Your task to perform on an android device: turn on airplane mode Image 0: 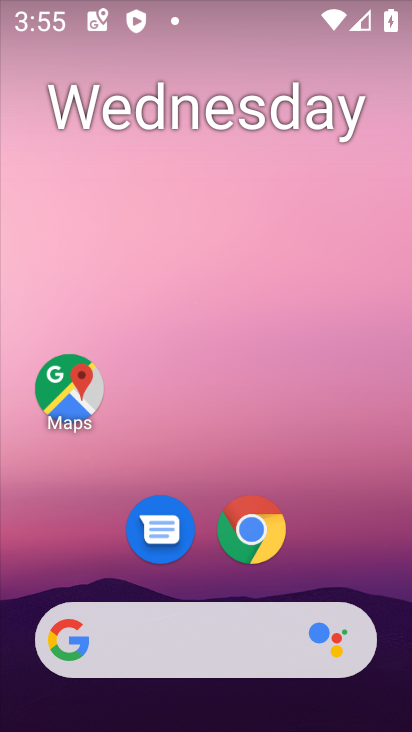
Step 0: drag from (336, 540) to (364, 98)
Your task to perform on an android device: turn on airplane mode Image 1: 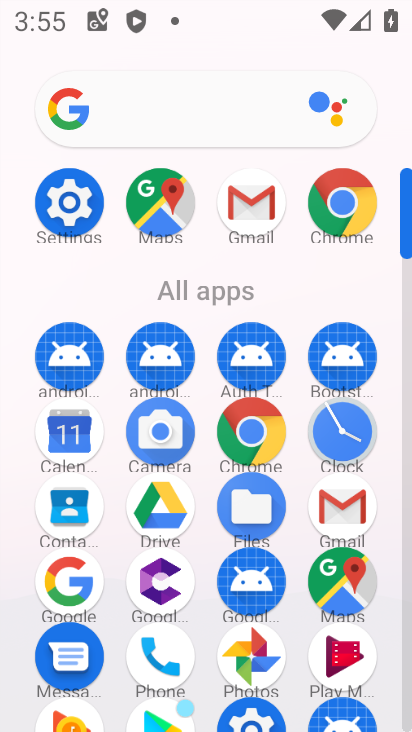
Step 1: click (88, 197)
Your task to perform on an android device: turn on airplane mode Image 2: 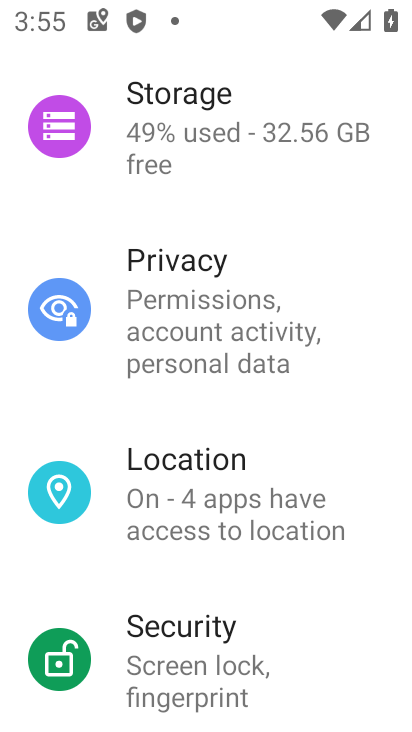
Step 2: drag from (286, 200) to (295, 608)
Your task to perform on an android device: turn on airplane mode Image 3: 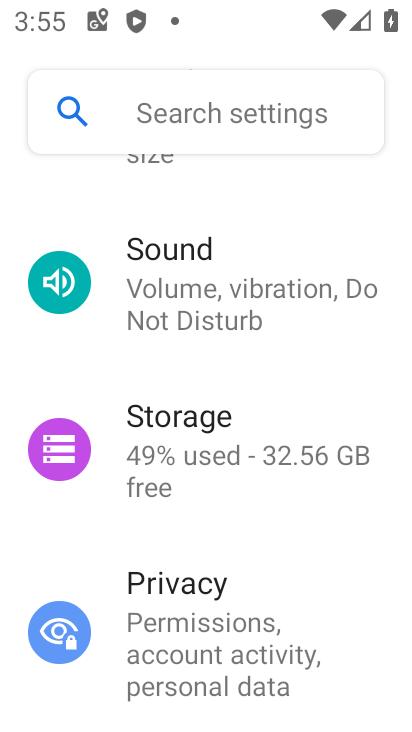
Step 3: drag from (273, 235) to (259, 663)
Your task to perform on an android device: turn on airplane mode Image 4: 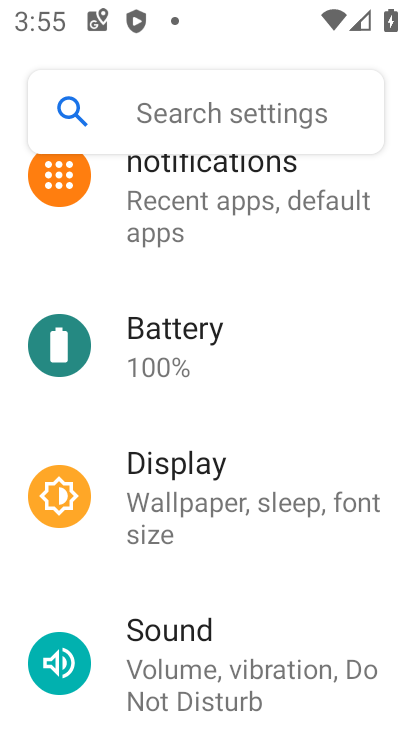
Step 4: drag from (262, 257) to (252, 658)
Your task to perform on an android device: turn on airplane mode Image 5: 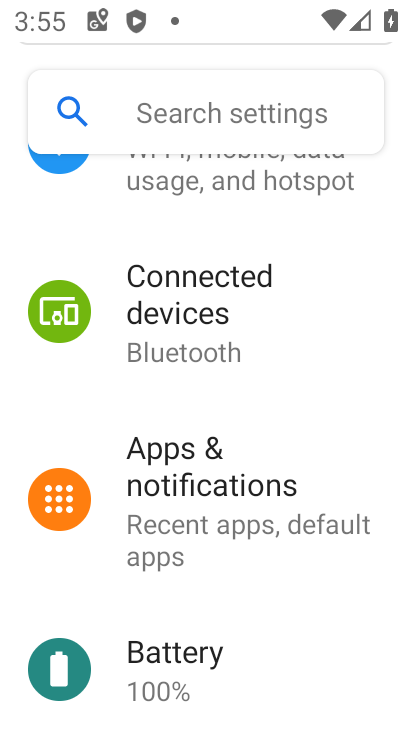
Step 5: drag from (261, 293) to (256, 681)
Your task to perform on an android device: turn on airplane mode Image 6: 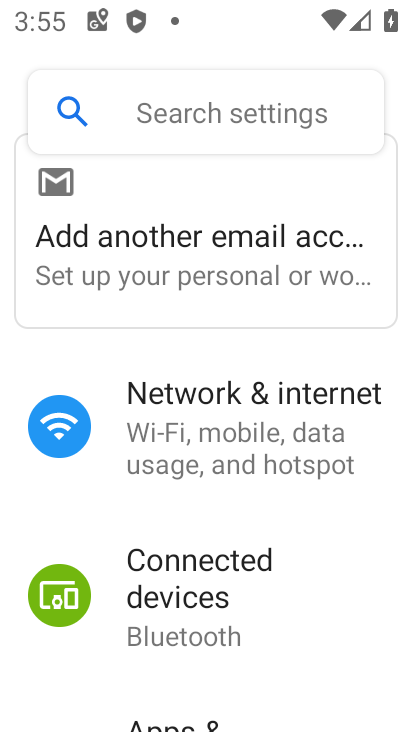
Step 6: drag from (291, 329) to (292, 577)
Your task to perform on an android device: turn on airplane mode Image 7: 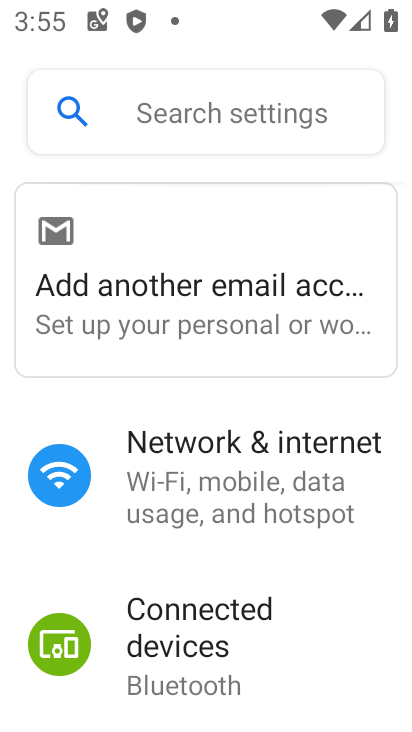
Step 7: click (287, 497)
Your task to perform on an android device: turn on airplane mode Image 8: 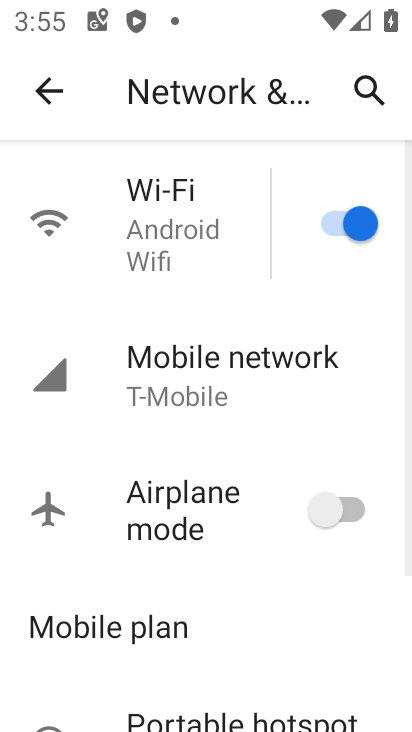
Step 8: click (343, 513)
Your task to perform on an android device: turn on airplane mode Image 9: 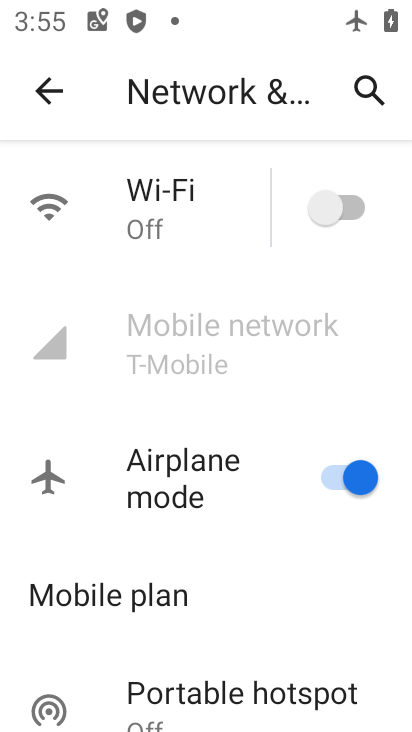
Step 9: task complete